Your task to perform on an android device: turn on sleep mode Image 0: 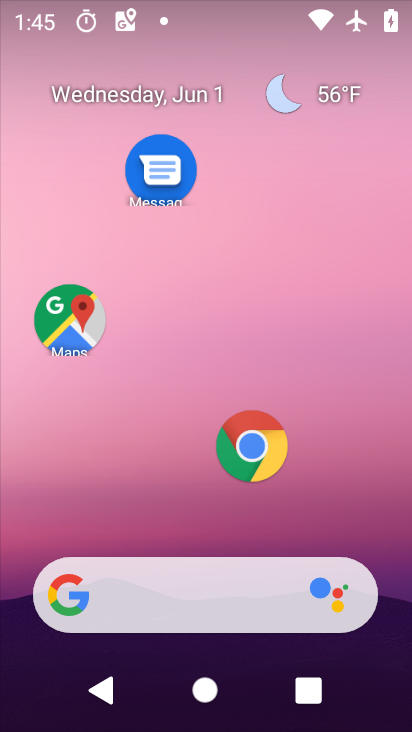
Step 0: drag from (174, 530) to (274, 104)
Your task to perform on an android device: turn on sleep mode Image 1: 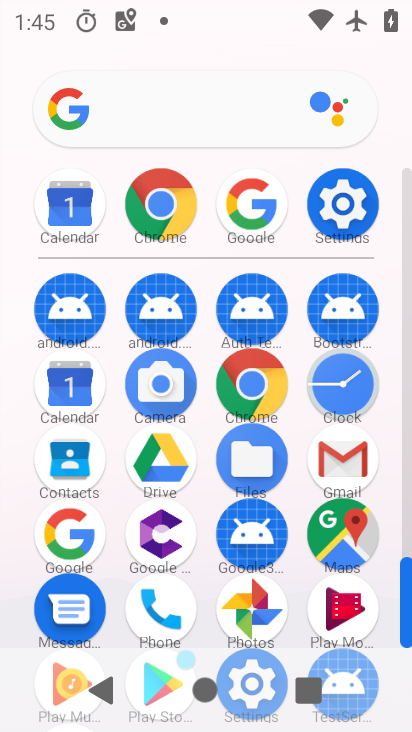
Step 1: drag from (208, 270) to (229, 1)
Your task to perform on an android device: turn on sleep mode Image 2: 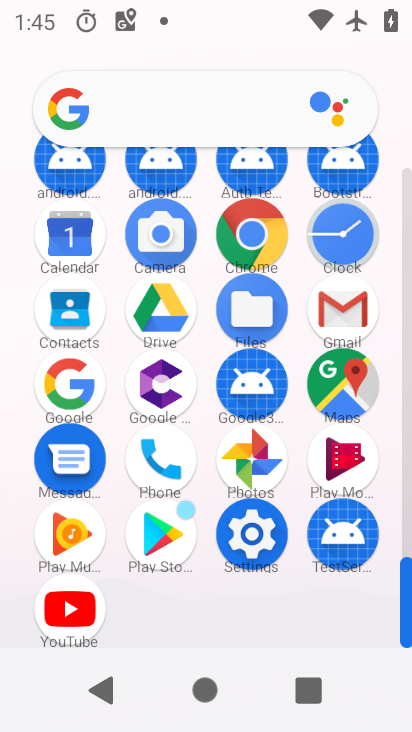
Step 2: click (263, 550)
Your task to perform on an android device: turn on sleep mode Image 3: 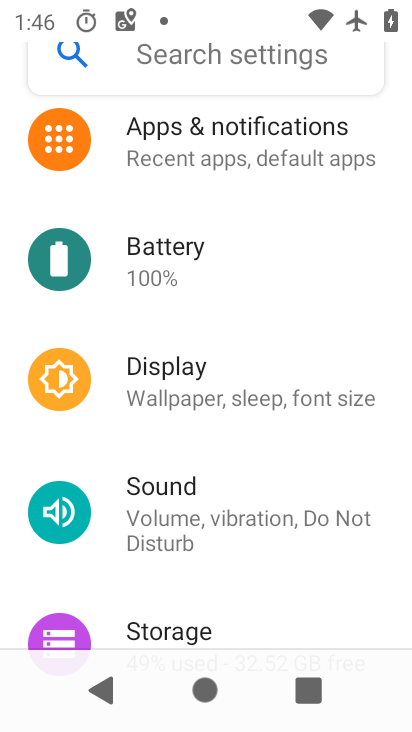
Step 3: task complete